Your task to perform on an android device: delete location history Image 0: 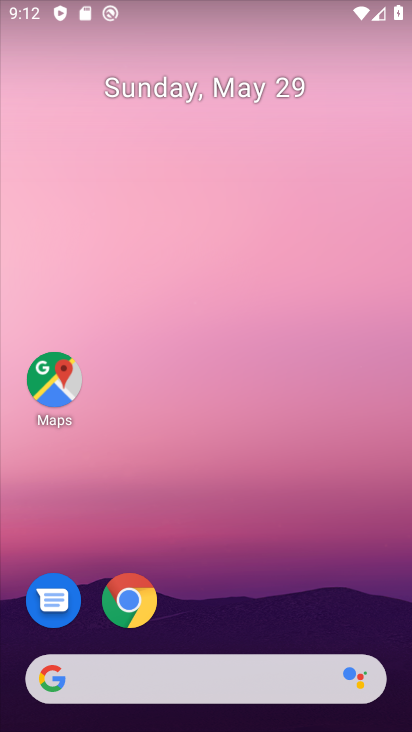
Step 0: drag from (264, 576) to (322, 75)
Your task to perform on an android device: delete location history Image 1: 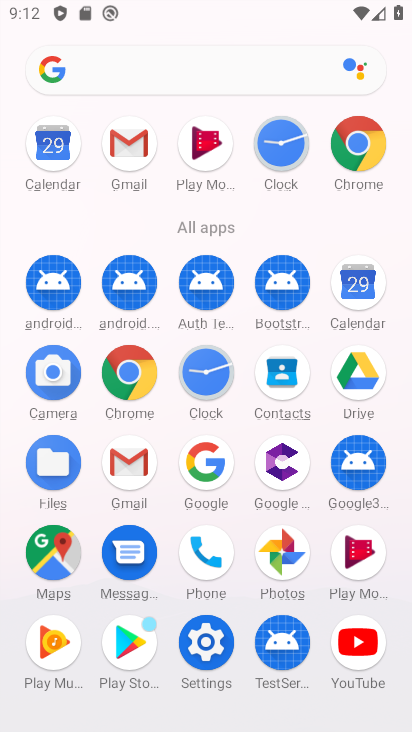
Step 1: click (74, 555)
Your task to perform on an android device: delete location history Image 2: 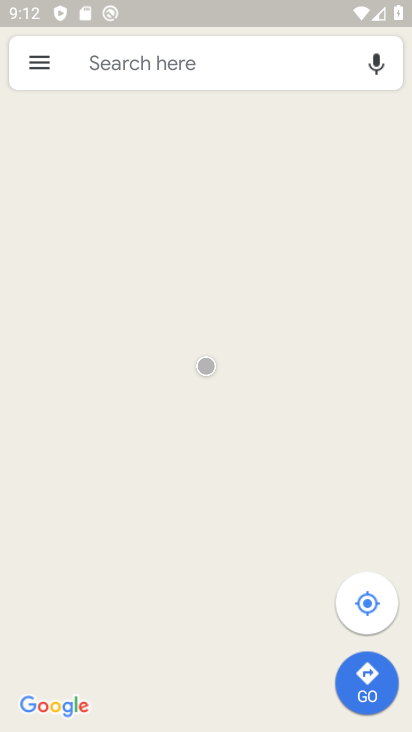
Step 2: click (33, 67)
Your task to perform on an android device: delete location history Image 3: 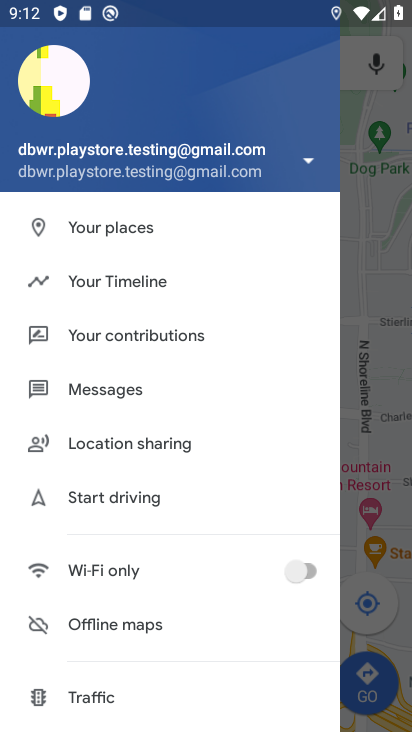
Step 3: click (91, 280)
Your task to perform on an android device: delete location history Image 4: 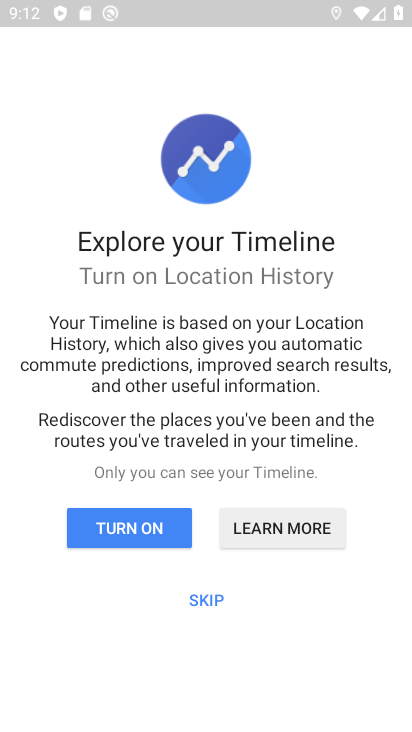
Step 4: click (123, 531)
Your task to perform on an android device: delete location history Image 5: 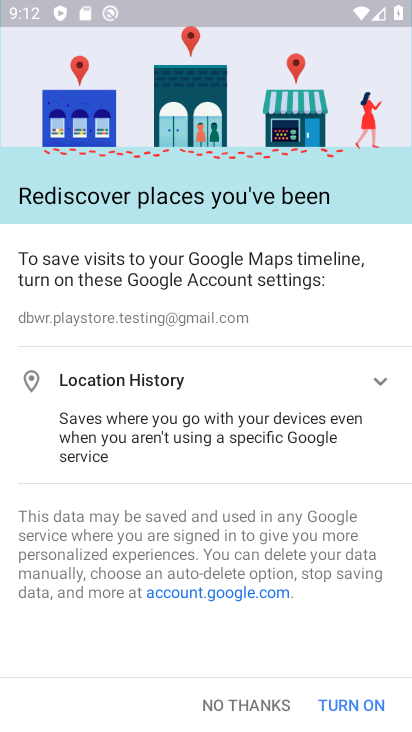
Step 5: click (234, 708)
Your task to perform on an android device: delete location history Image 6: 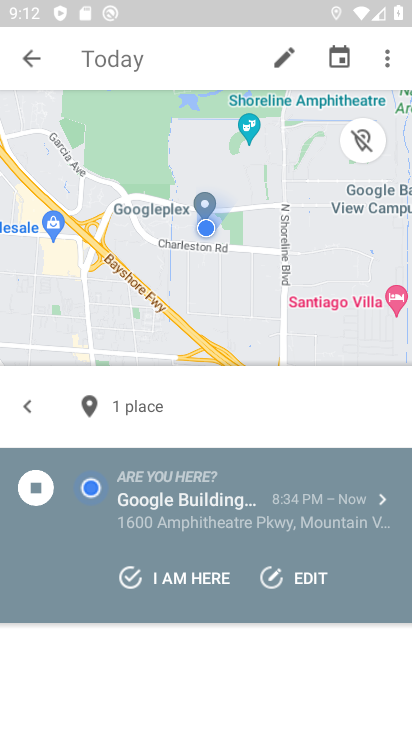
Step 6: click (387, 67)
Your task to perform on an android device: delete location history Image 7: 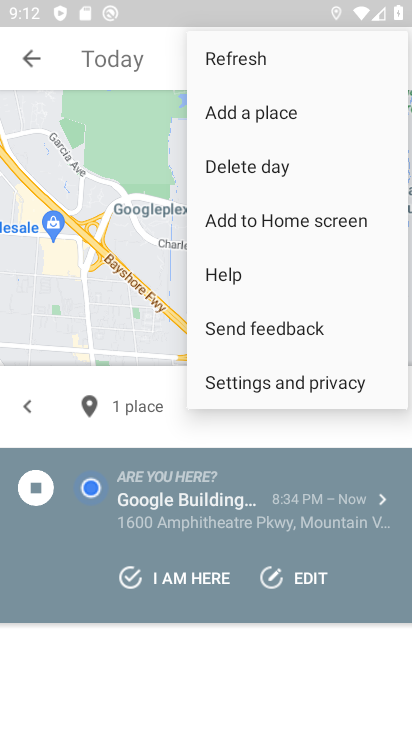
Step 7: click (249, 390)
Your task to perform on an android device: delete location history Image 8: 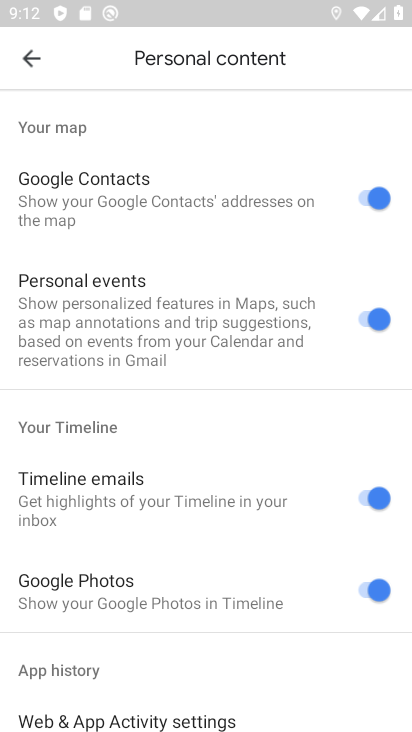
Step 8: drag from (244, 548) to (290, 128)
Your task to perform on an android device: delete location history Image 9: 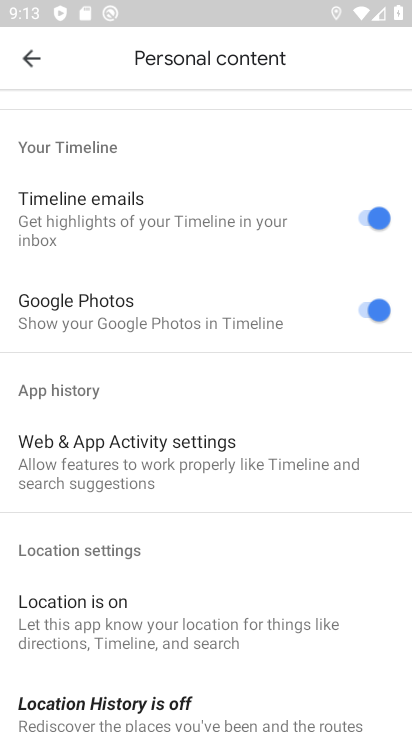
Step 9: drag from (164, 639) to (208, 339)
Your task to perform on an android device: delete location history Image 10: 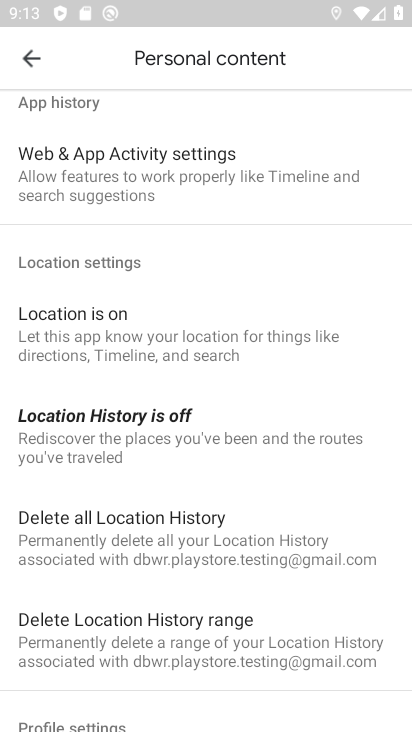
Step 10: click (68, 417)
Your task to perform on an android device: delete location history Image 11: 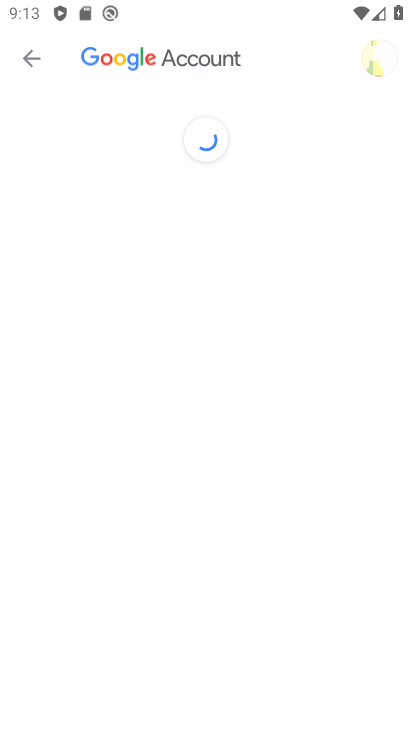
Step 11: press back button
Your task to perform on an android device: delete location history Image 12: 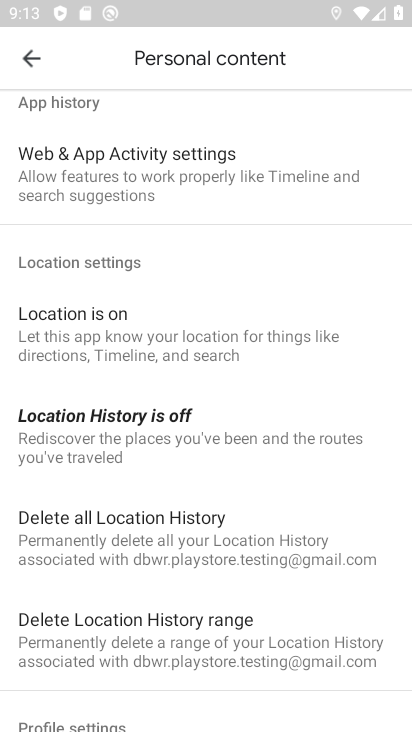
Step 12: click (123, 532)
Your task to perform on an android device: delete location history Image 13: 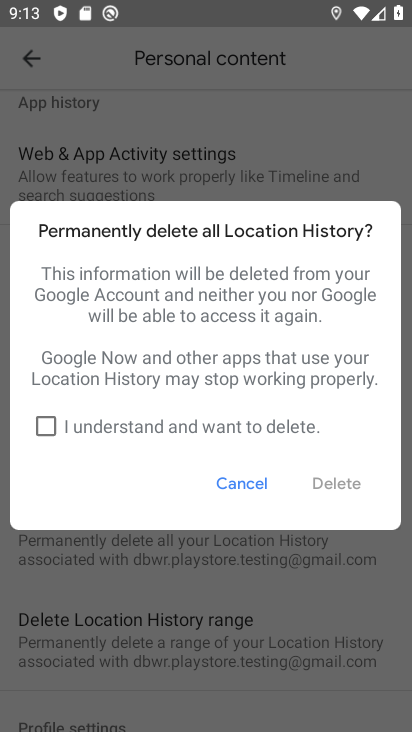
Step 13: click (40, 425)
Your task to perform on an android device: delete location history Image 14: 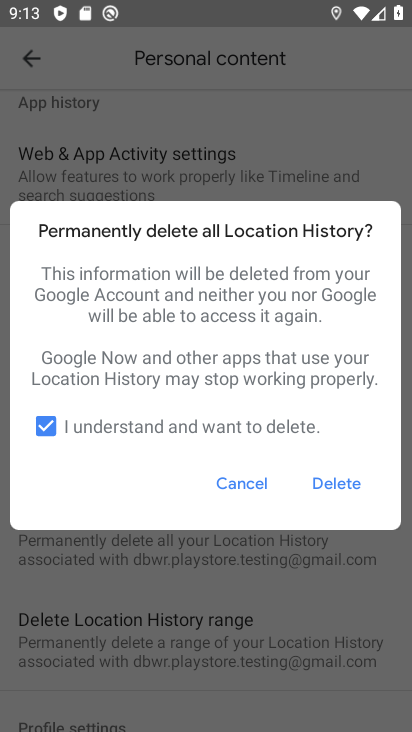
Step 14: click (340, 480)
Your task to perform on an android device: delete location history Image 15: 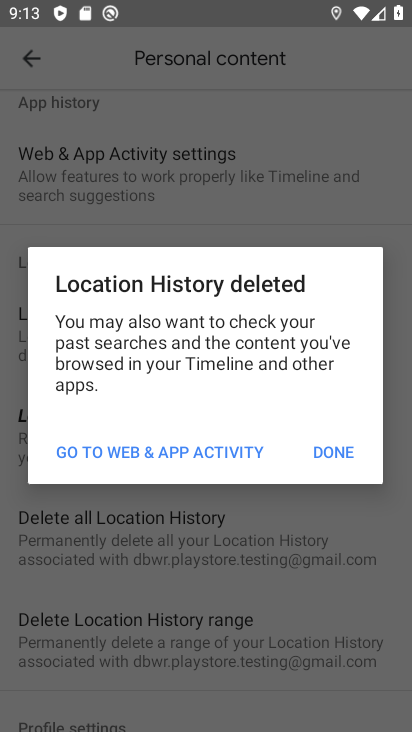
Step 15: click (339, 445)
Your task to perform on an android device: delete location history Image 16: 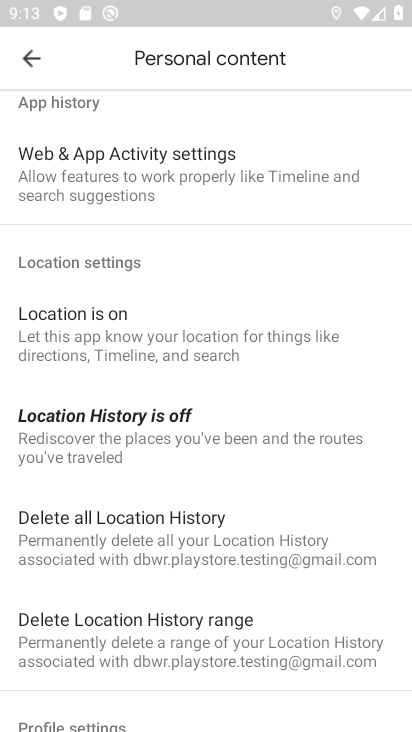
Step 16: task complete